Your task to perform on an android device: Go to location settings Image 0: 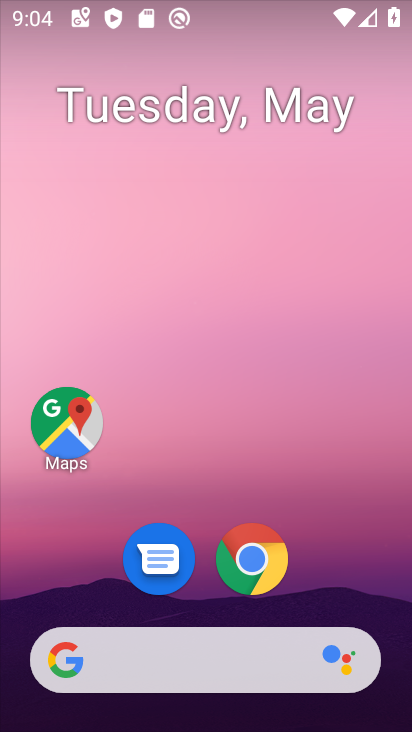
Step 0: drag from (313, 520) to (219, 42)
Your task to perform on an android device: Go to location settings Image 1: 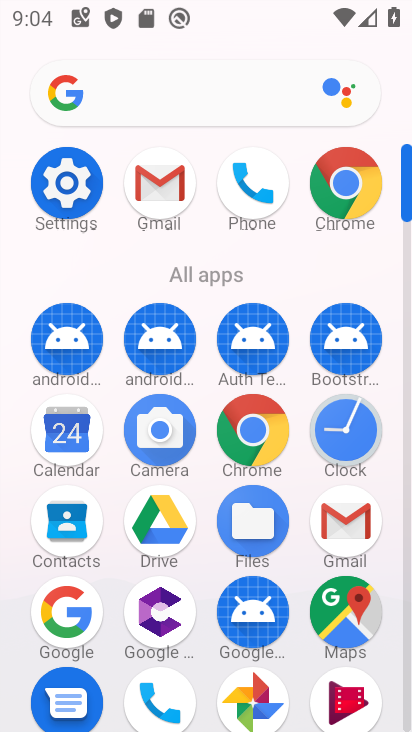
Step 1: click (74, 182)
Your task to perform on an android device: Go to location settings Image 2: 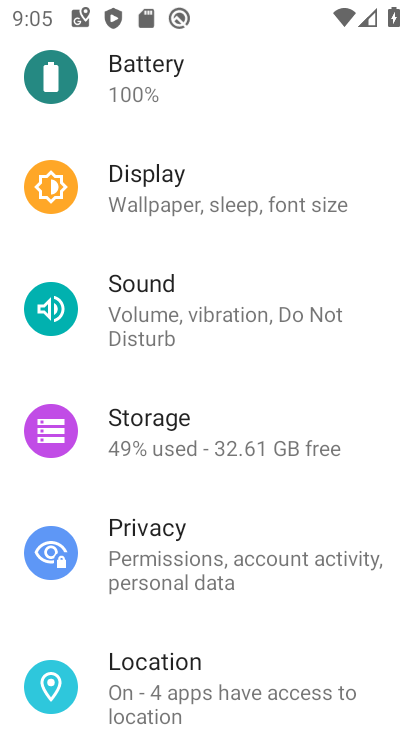
Step 2: drag from (178, 555) to (199, 253)
Your task to perform on an android device: Go to location settings Image 3: 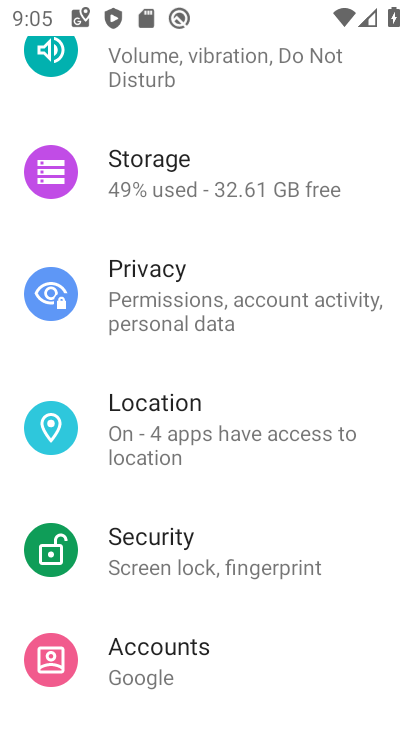
Step 3: click (173, 424)
Your task to perform on an android device: Go to location settings Image 4: 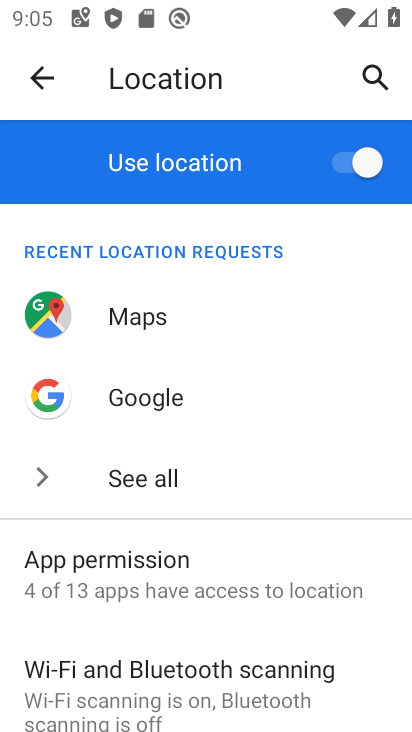
Step 4: task complete